Your task to perform on an android device: Go to CNN.com Image 0: 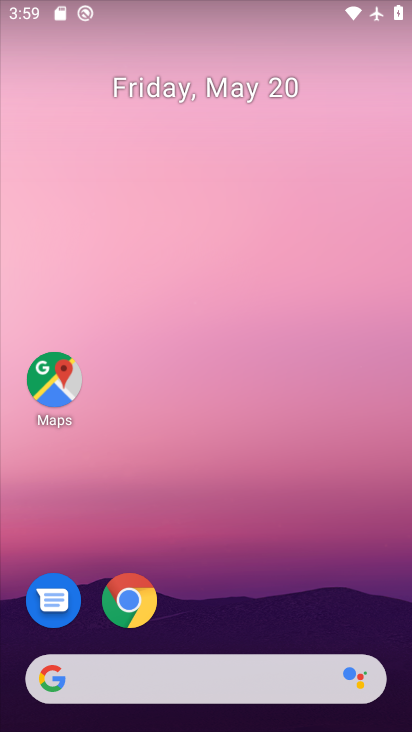
Step 0: click (137, 603)
Your task to perform on an android device: Go to CNN.com Image 1: 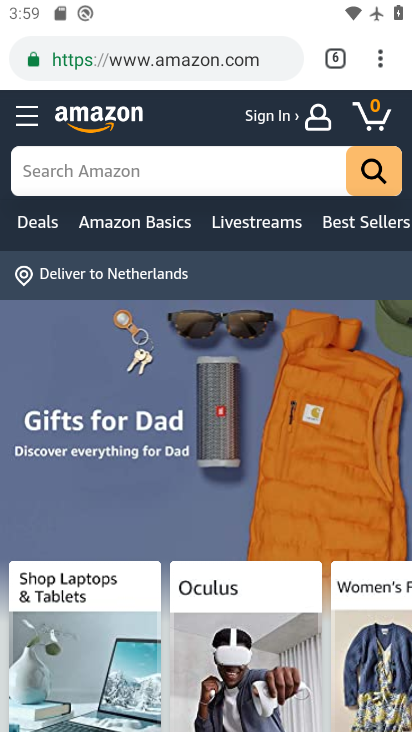
Step 1: click (340, 66)
Your task to perform on an android device: Go to CNN.com Image 2: 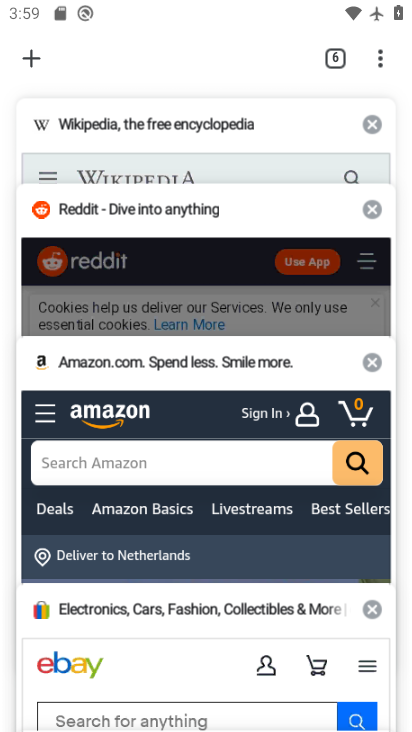
Step 2: drag from (196, 229) to (135, 705)
Your task to perform on an android device: Go to CNN.com Image 3: 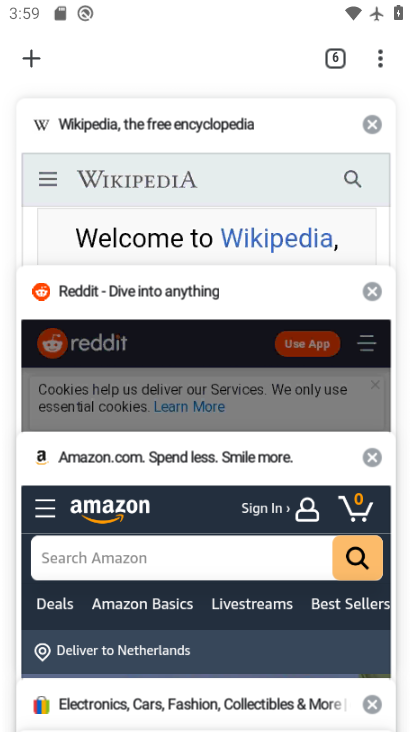
Step 3: drag from (183, 303) to (136, 631)
Your task to perform on an android device: Go to CNN.com Image 4: 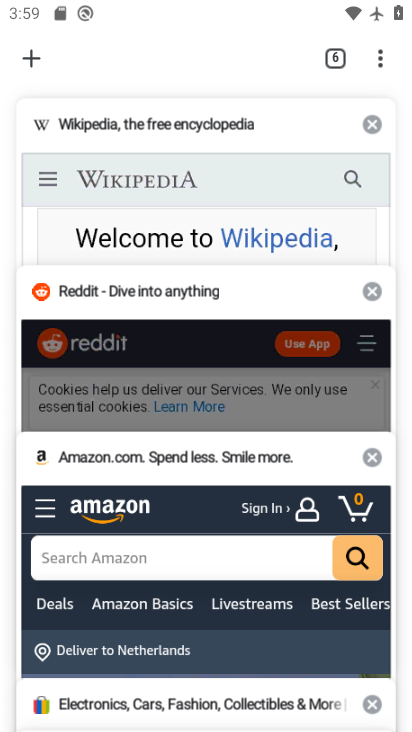
Step 4: click (31, 54)
Your task to perform on an android device: Go to CNN.com Image 5: 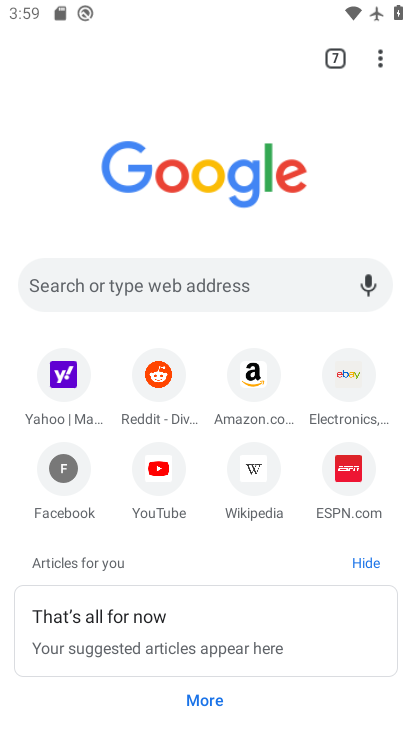
Step 5: click (198, 265)
Your task to perform on an android device: Go to CNN.com Image 6: 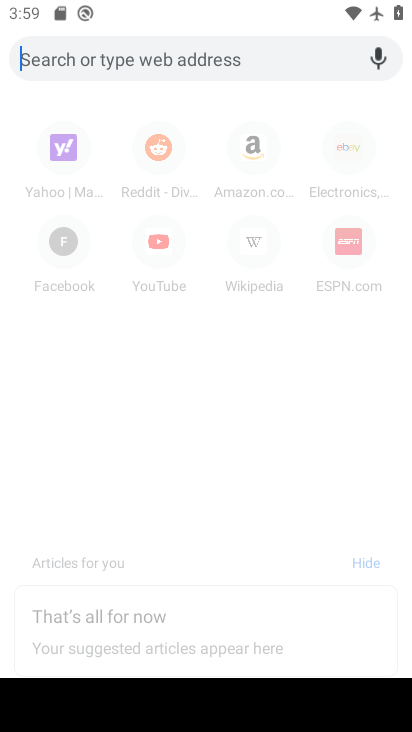
Step 6: type "CNN.com"
Your task to perform on an android device: Go to CNN.com Image 7: 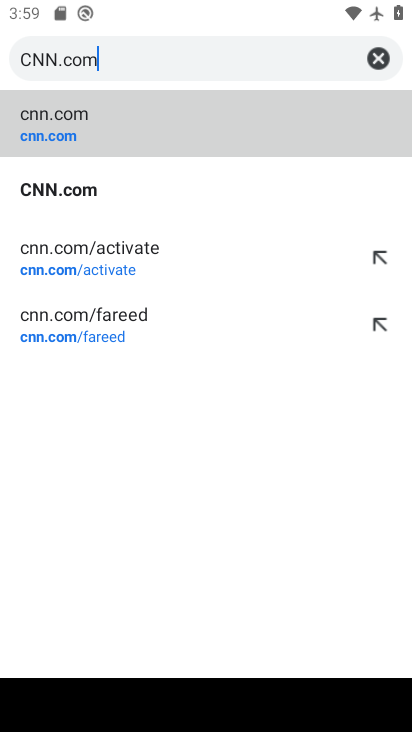
Step 7: click (179, 136)
Your task to perform on an android device: Go to CNN.com Image 8: 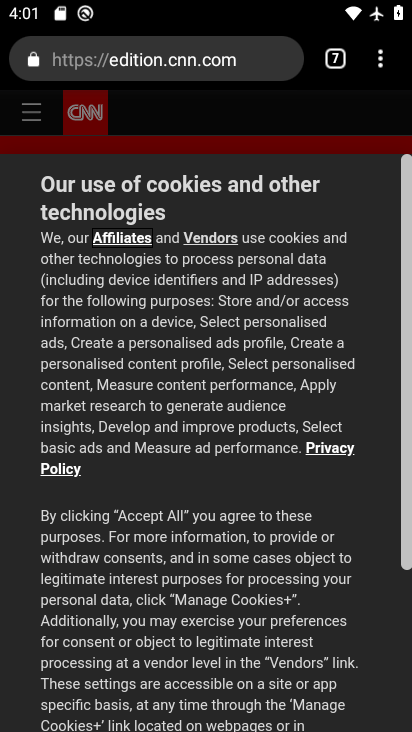
Step 8: task complete